Your task to perform on an android device: search for starred emails in the gmail app Image 0: 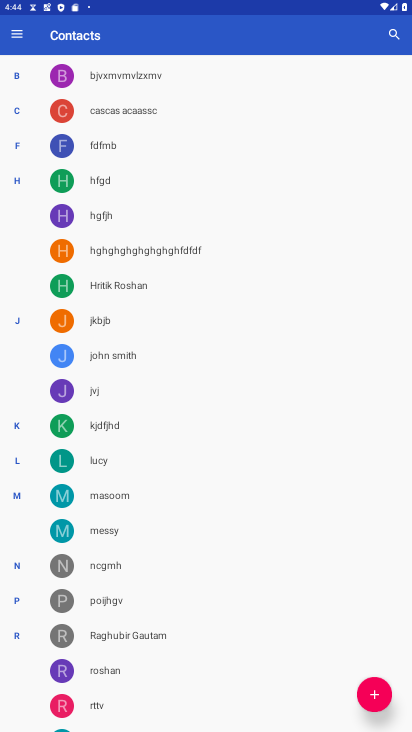
Step 0: press home button
Your task to perform on an android device: search for starred emails in the gmail app Image 1: 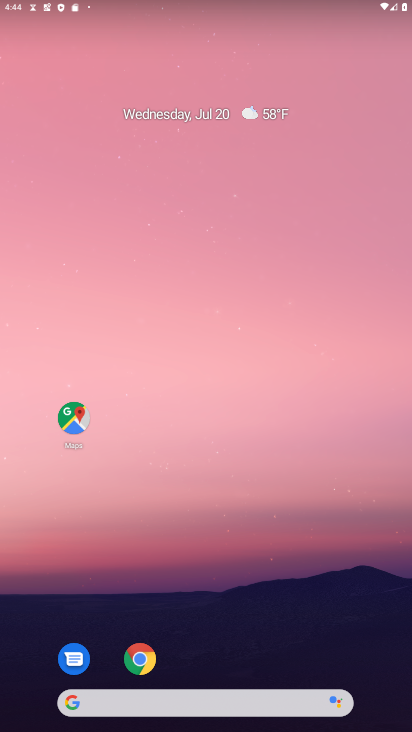
Step 1: drag from (310, 714) to (310, 42)
Your task to perform on an android device: search for starred emails in the gmail app Image 2: 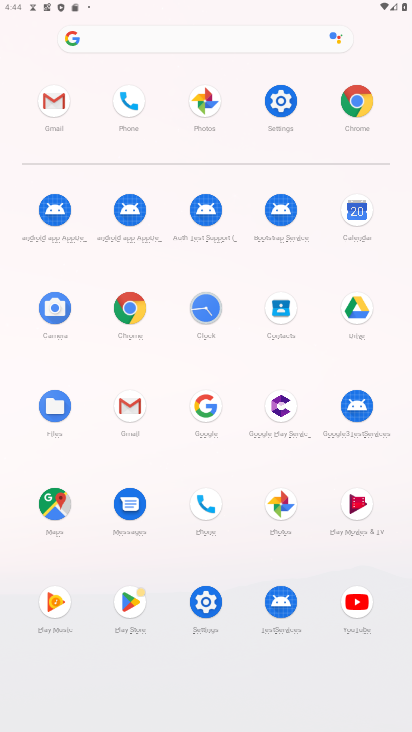
Step 2: click (123, 401)
Your task to perform on an android device: search for starred emails in the gmail app Image 3: 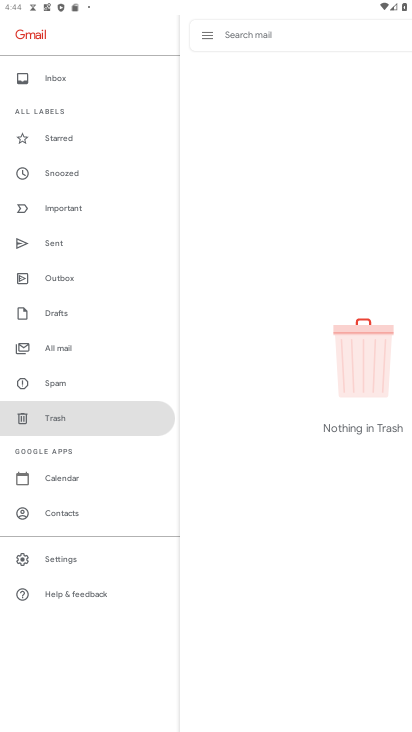
Step 3: click (69, 137)
Your task to perform on an android device: search for starred emails in the gmail app Image 4: 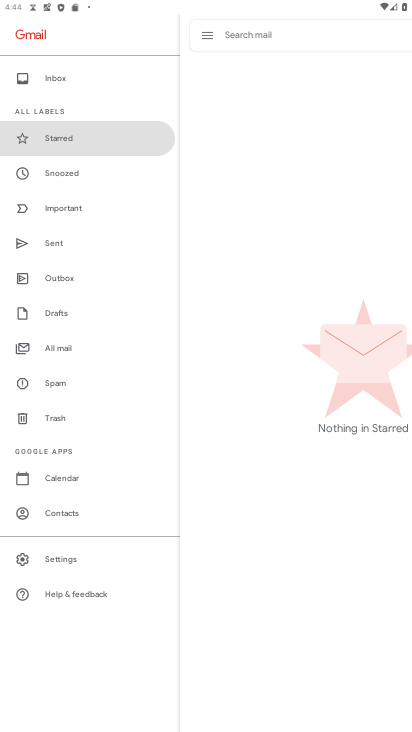
Step 4: task complete